Your task to perform on an android device: set the timer Image 0: 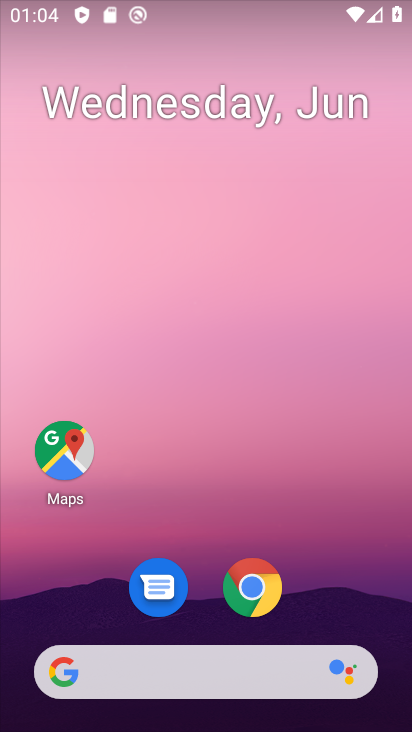
Step 0: drag from (335, 487) to (314, 129)
Your task to perform on an android device: set the timer Image 1: 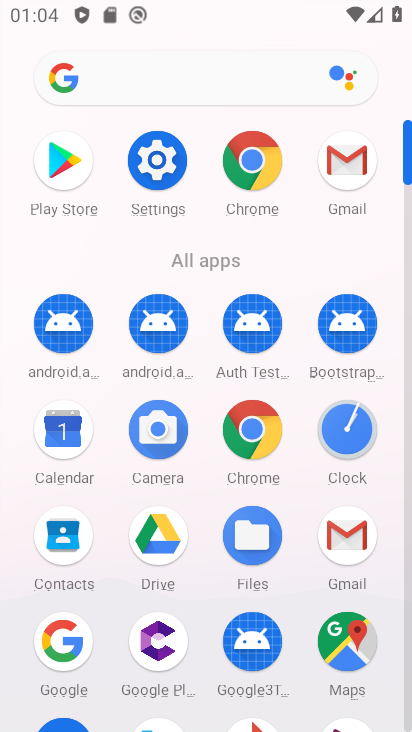
Step 1: click (338, 424)
Your task to perform on an android device: set the timer Image 2: 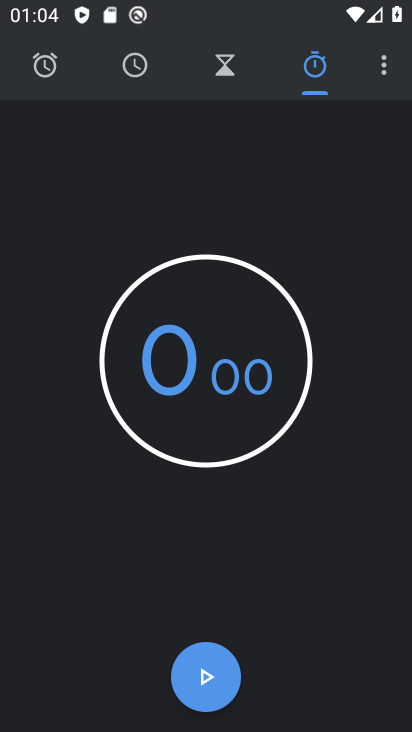
Step 2: click (230, 76)
Your task to perform on an android device: set the timer Image 3: 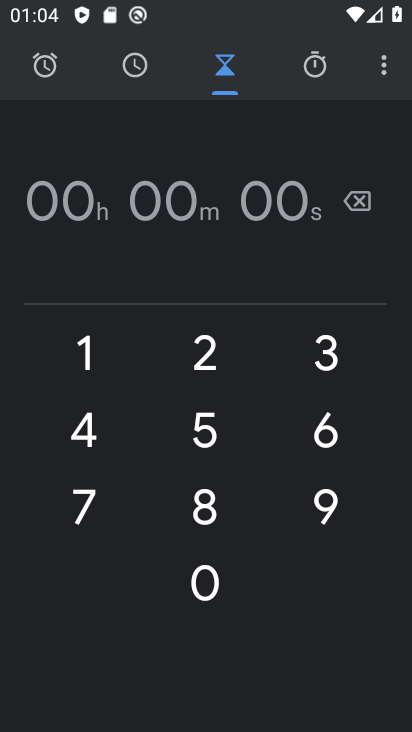
Step 3: click (204, 424)
Your task to perform on an android device: set the timer Image 4: 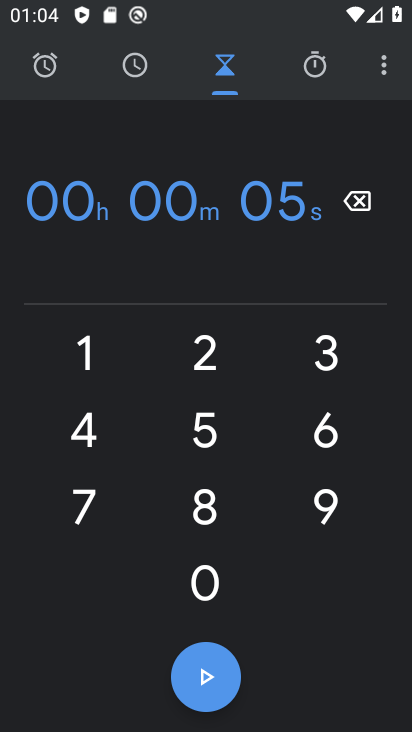
Step 4: task complete